Your task to perform on an android device: choose inbox layout in the gmail app Image 0: 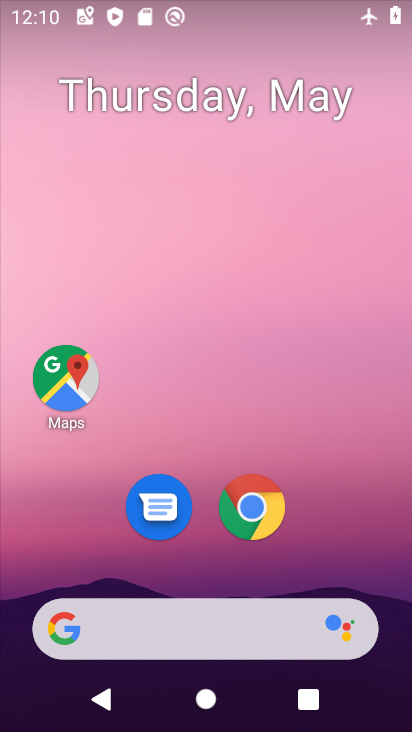
Step 0: drag from (259, 464) to (256, 151)
Your task to perform on an android device: choose inbox layout in the gmail app Image 1: 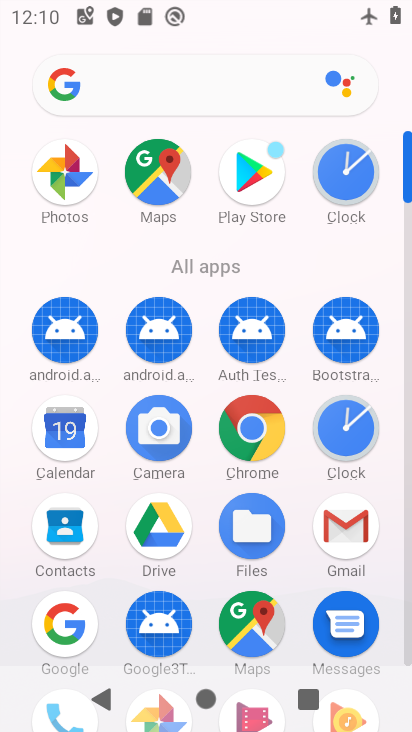
Step 1: click (348, 534)
Your task to perform on an android device: choose inbox layout in the gmail app Image 2: 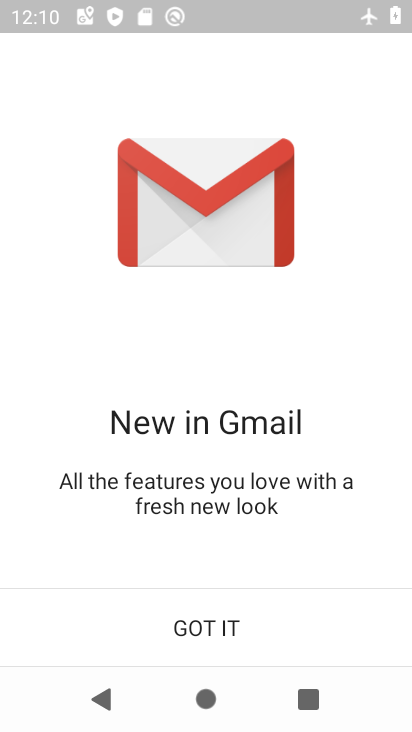
Step 2: click (235, 623)
Your task to perform on an android device: choose inbox layout in the gmail app Image 3: 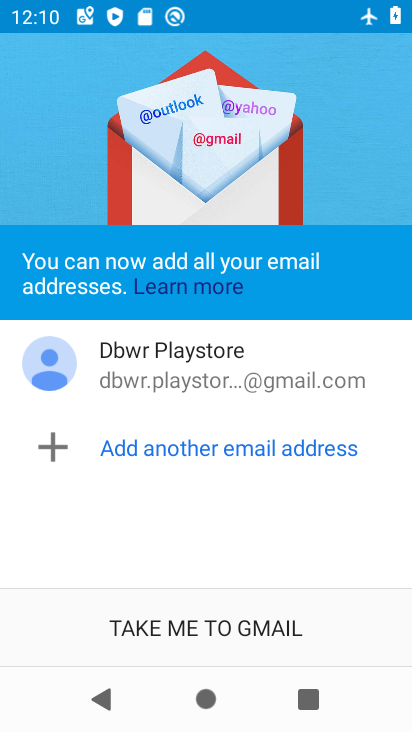
Step 3: click (228, 633)
Your task to perform on an android device: choose inbox layout in the gmail app Image 4: 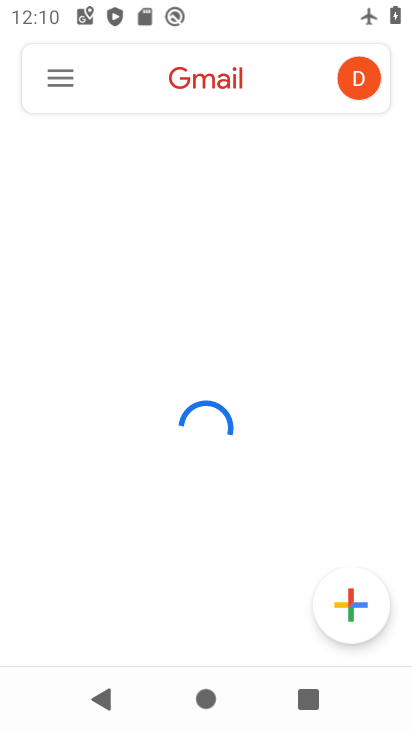
Step 4: click (59, 73)
Your task to perform on an android device: choose inbox layout in the gmail app Image 5: 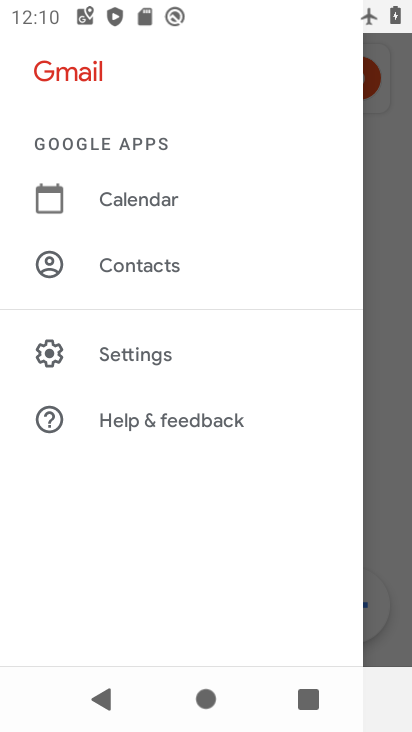
Step 5: click (130, 355)
Your task to perform on an android device: choose inbox layout in the gmail app Image 6: 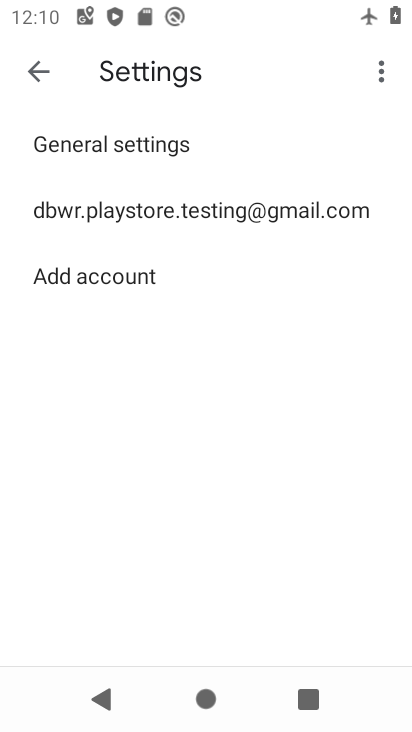
Step 6: click (98, 209)
Your task to perform on an android device: choose inbox layout in the gmail app Image 7: 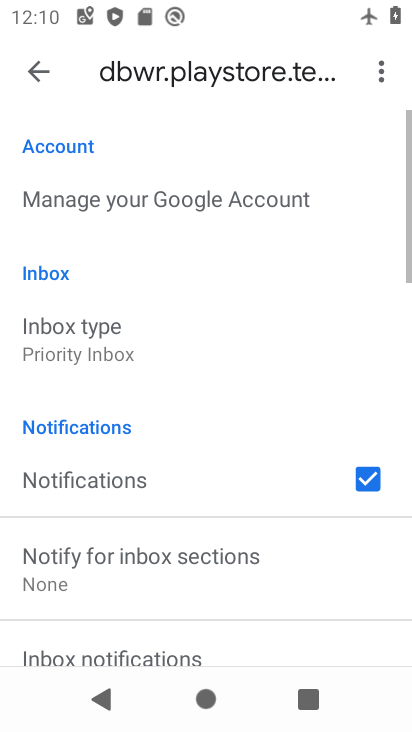
Step 7: click (105, 341)
Your task to perform on an android device: choose inbox layout in the gmail app Image 8: 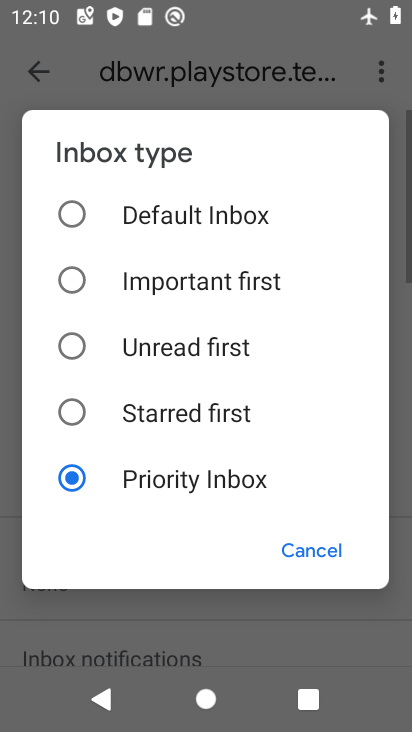
Step 8: click (91, 282)
Your task to perform on an android device: choose inbox layout in the gmail app Image 9: 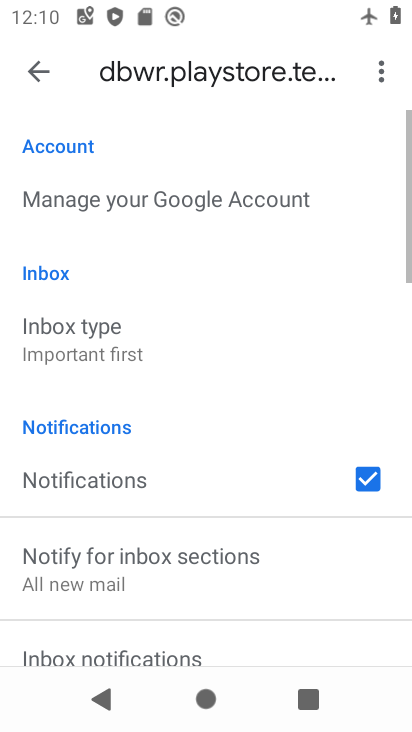
Step 9: task complete